Your task to perform on an android device: What's on my calendar today? Image 0: 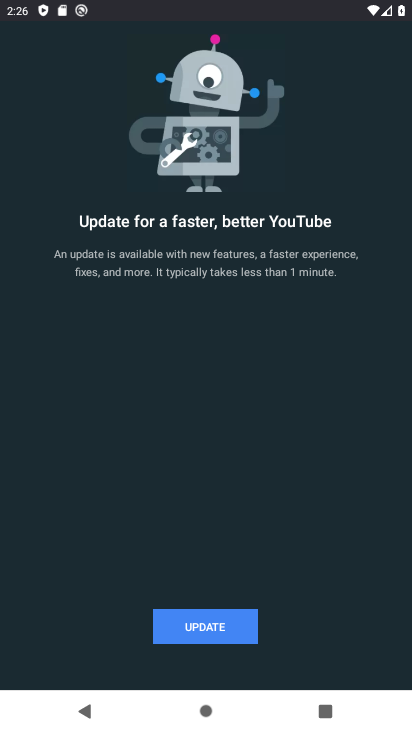
Step 0: press home button
Your task to perform on an android device: What's on my calendar today? Image 1: 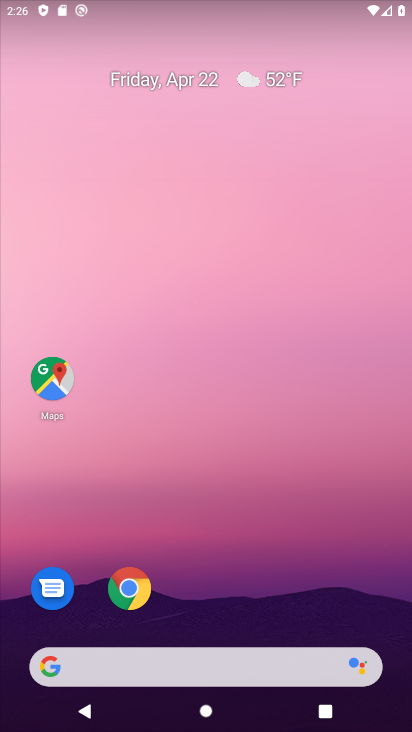
Step 1: drag from (363, 614) to (380, 60)
Your task to perform on an android device: What's on my calendar today? Image 2: 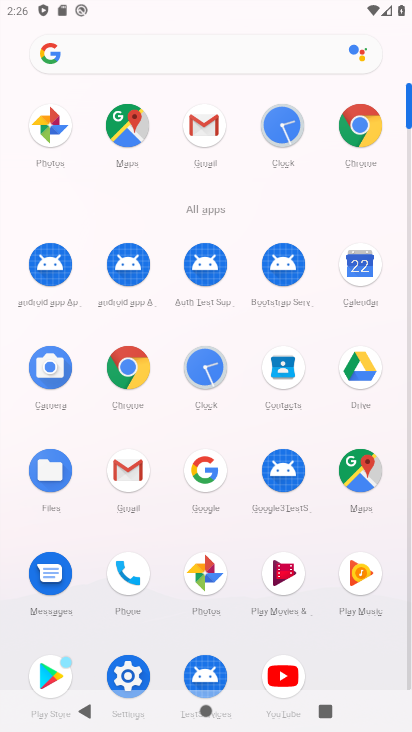
Step 2: click (363, 266)
Your task to perform on an android device: What's on my calendar today? Image 3: 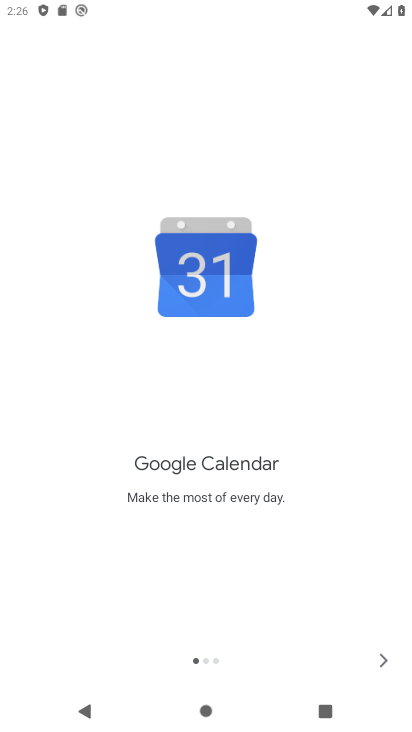
Step 3: click (379, 664)
Your task to perform on an android device: What's on my calendar today? Image 4: 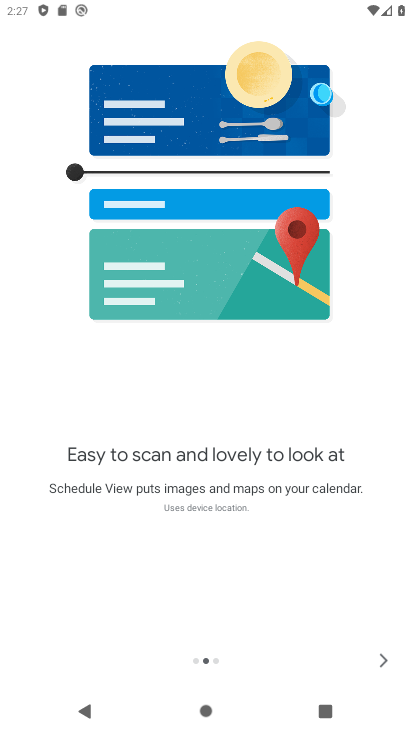
Step 4: click (379, 664)
Your task to perform on an android device: What's on my calendar today? Image 5: 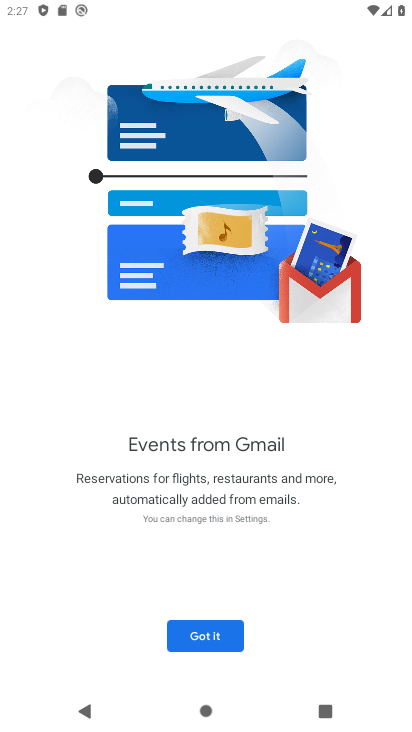
Step 5: click (187, 646)
Your task to perform on an android device: What's on my calendar today? Image 6: 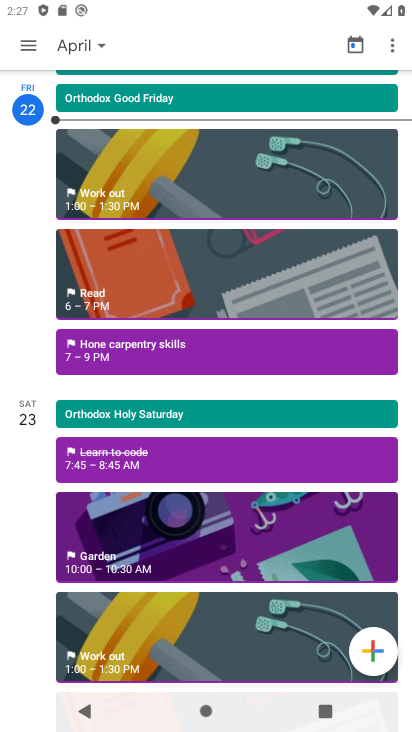
Step 6: click (148, 361)
Your task to perform on an android device: What's on my calendar today? Image 7: 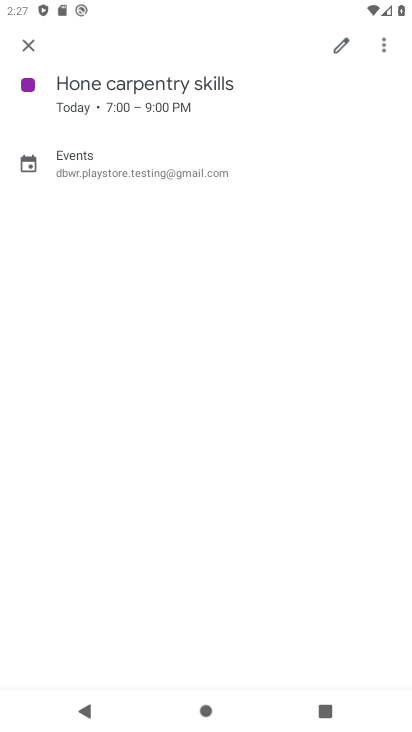
Step 7: task complete